Your task to perform on an android device: Search for Mexican restaurants on Maps Image 0: 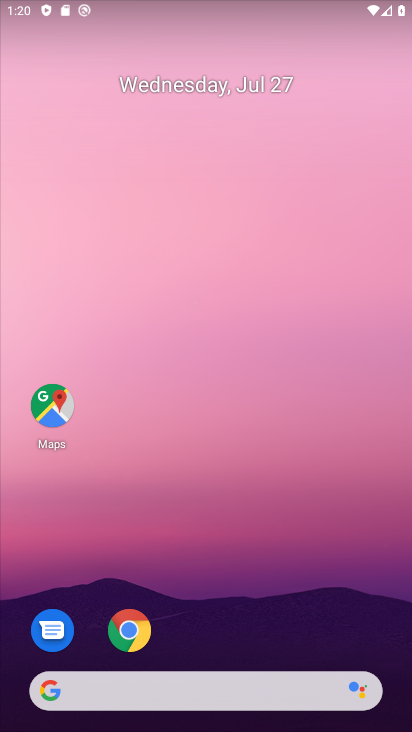
Step 0: click (63, 424)
Your task to perform on an android device: Search for Mexican restaurants on Maps Image 1: 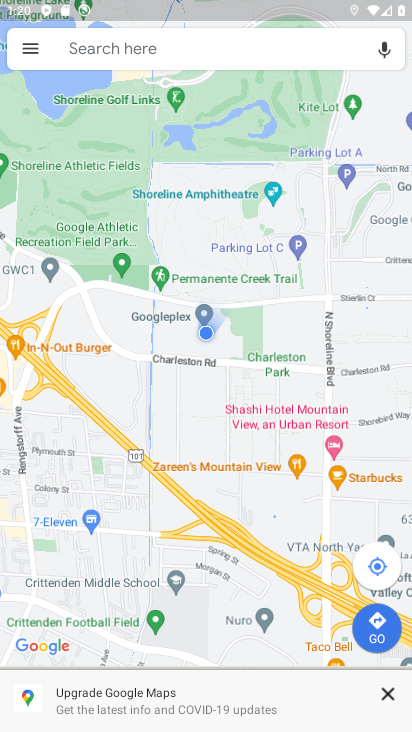
Step 1: click (194, 45)
Your task to perform on an android device: Search for Mexican restaurants on Maps Image 2: 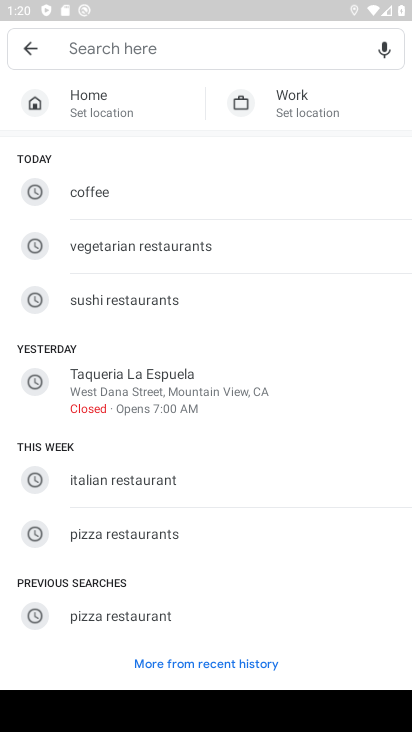
Step 2: type "mexican restaurants"
Your task to perform on an android device: Search for Mexican restaurants on Maps Image 3: 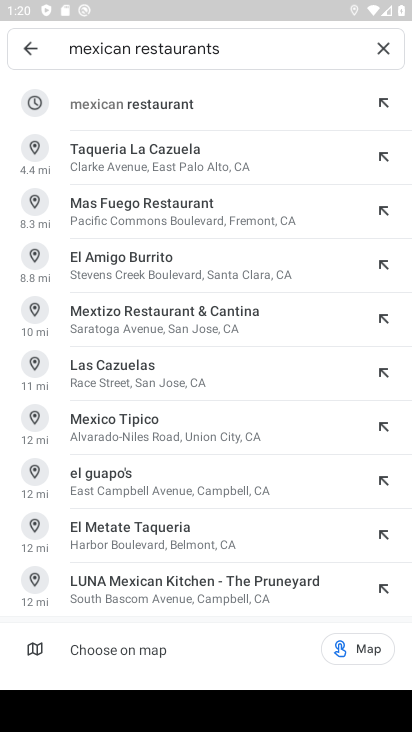
Step 3: click (162, 101)
Your task to perform on an android device: Search for Mexican restaurants on Maps Image 4: 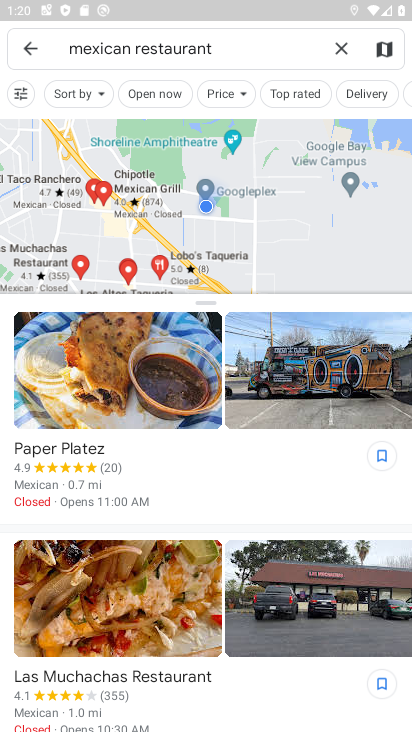
Step 4: task complete